Your task to perform on an android device: toggle airplane mode Image 0: 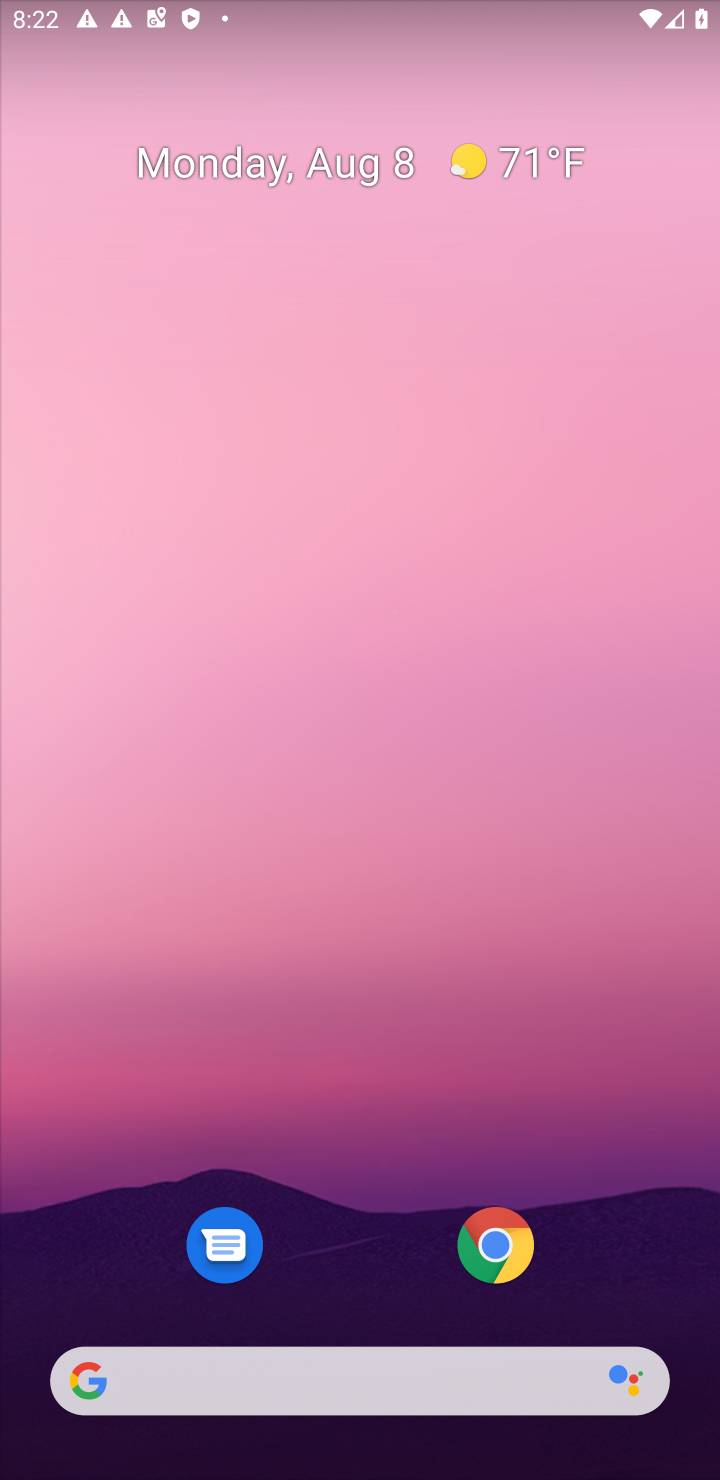
Step 0: drag from (355, 1034) to (364, 1)
Your task to perform on an android device: toggle airplane mode Image 1: 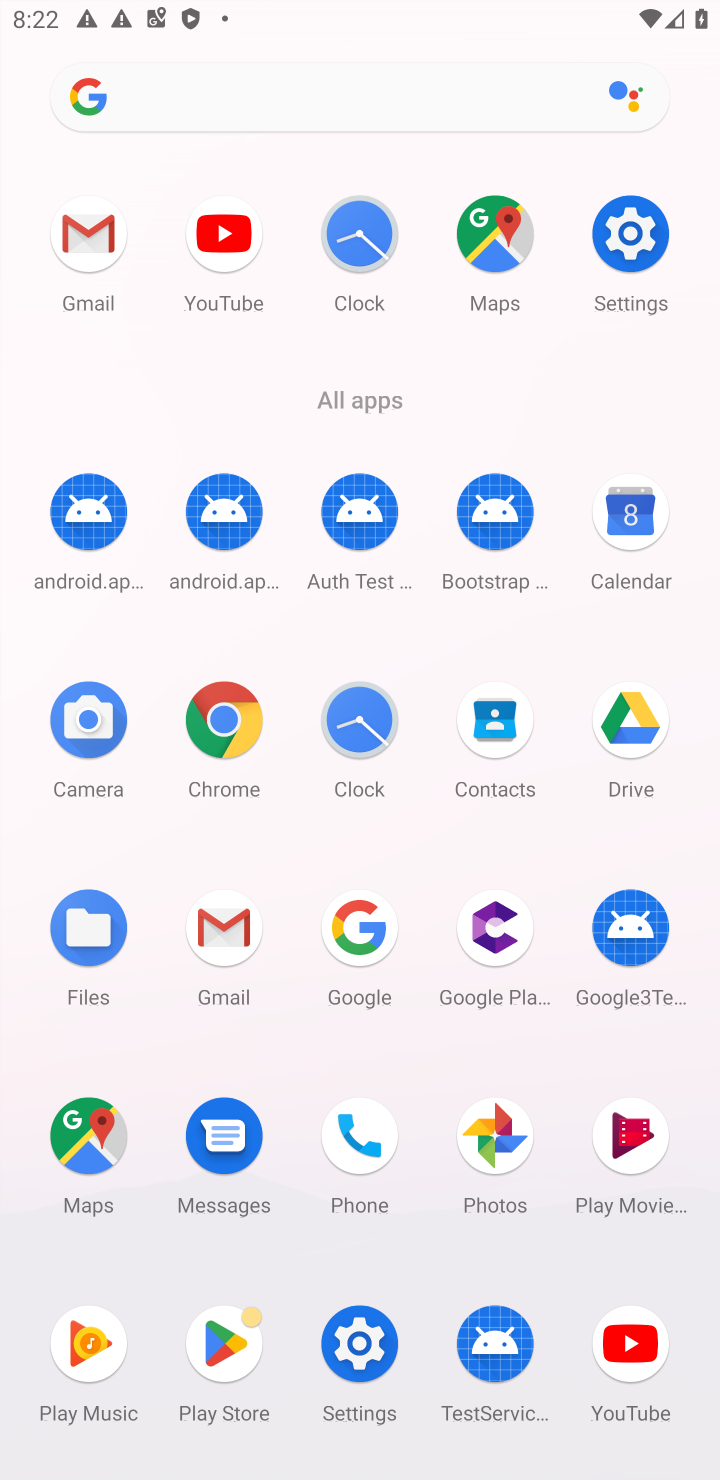
Step 1: click (644, 266)
Your task to perform on an android device: toggle airplane mode Image 2: 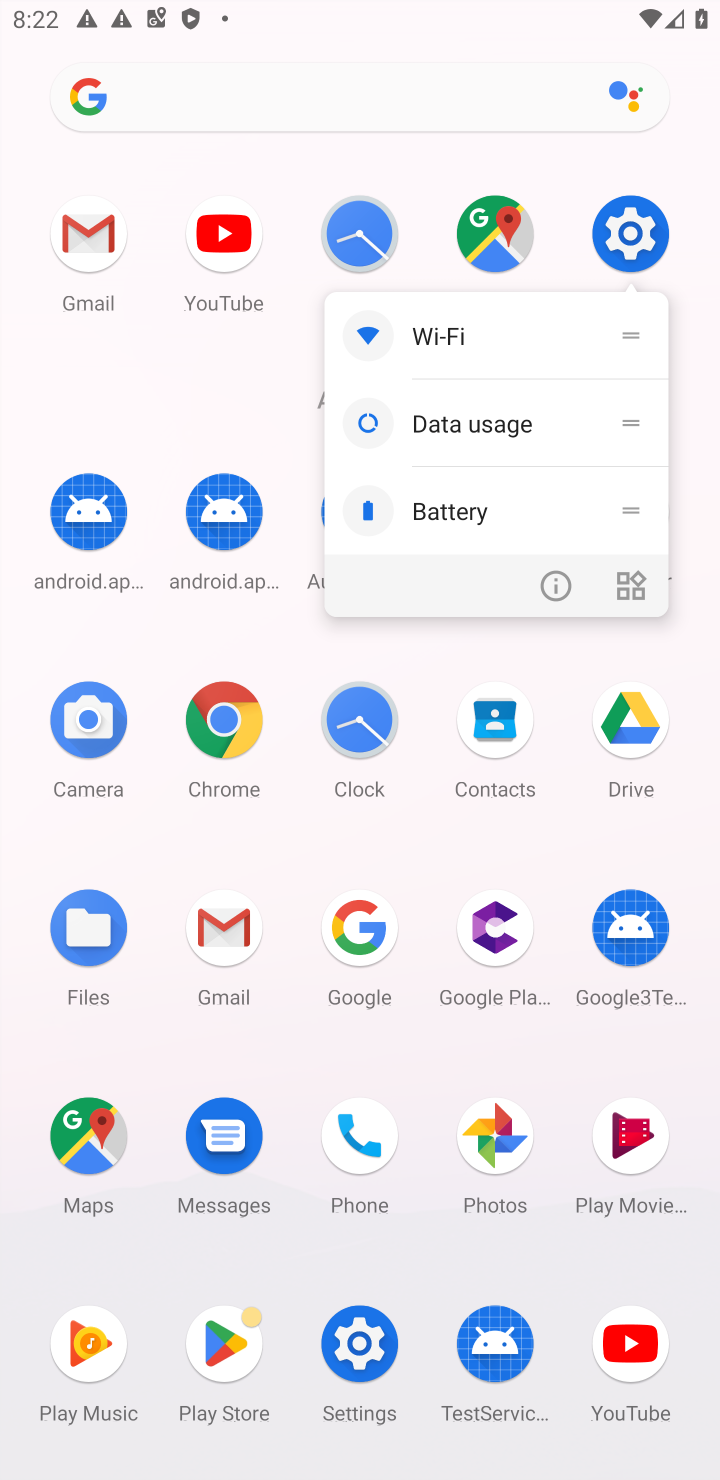
Step 2: click (628, 235)
Your task to perform on an android device: toggle airplane mode Image 3: 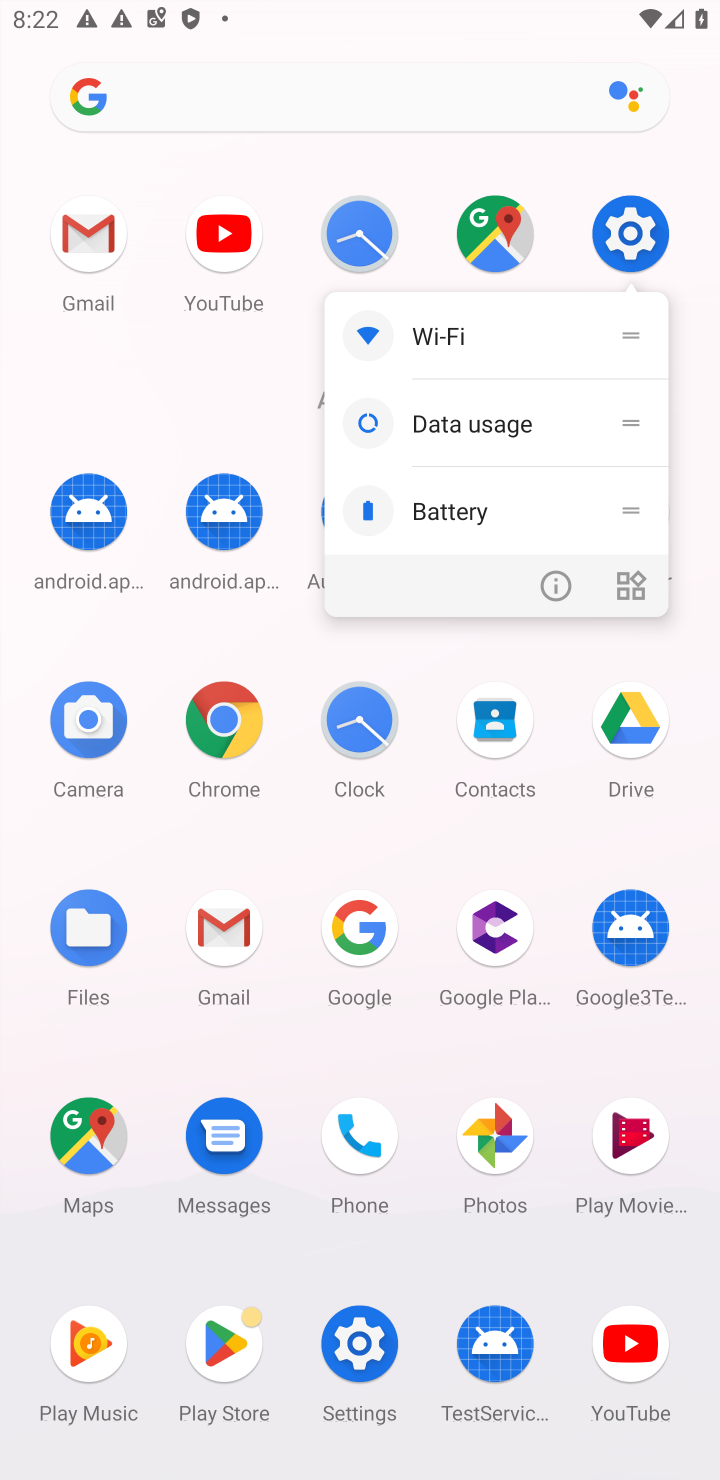
Step 3: click (648, 227)
Your task to perform on an android device: toggle airplane mode Image 4: 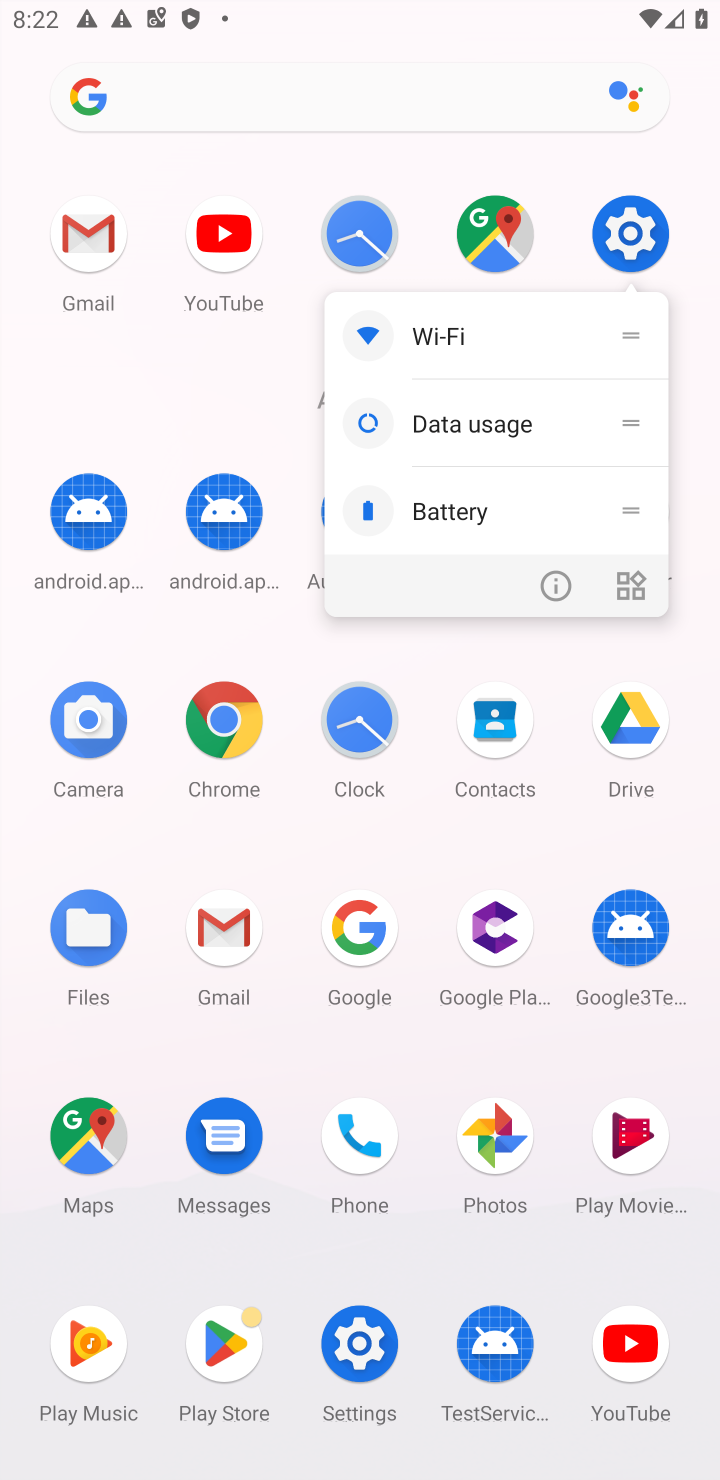
Step 4: click (672, 185)
Your task to perform on an android device: toggle airplane mode Image 5: 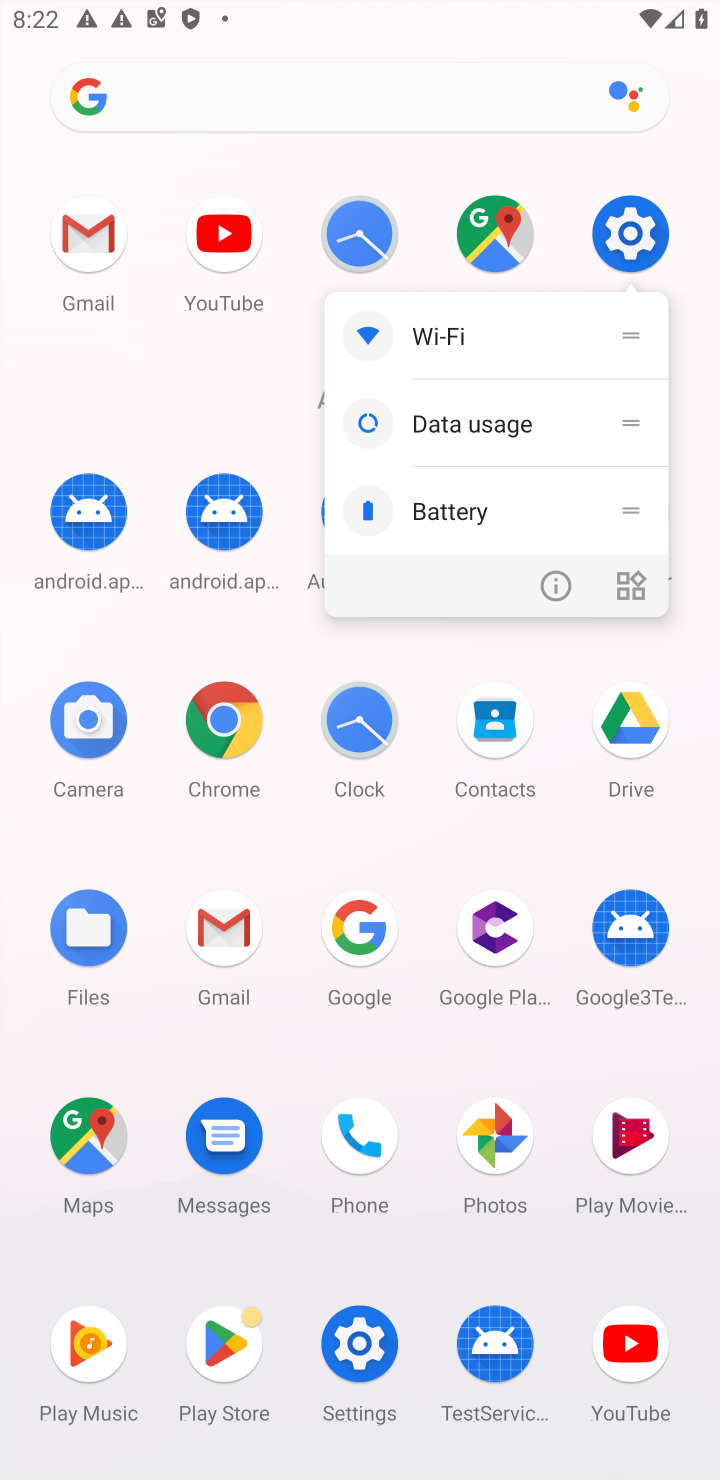
Step 5: click (631, 234)
Your task to perform on an android device: toggle airplane mode Image 6: 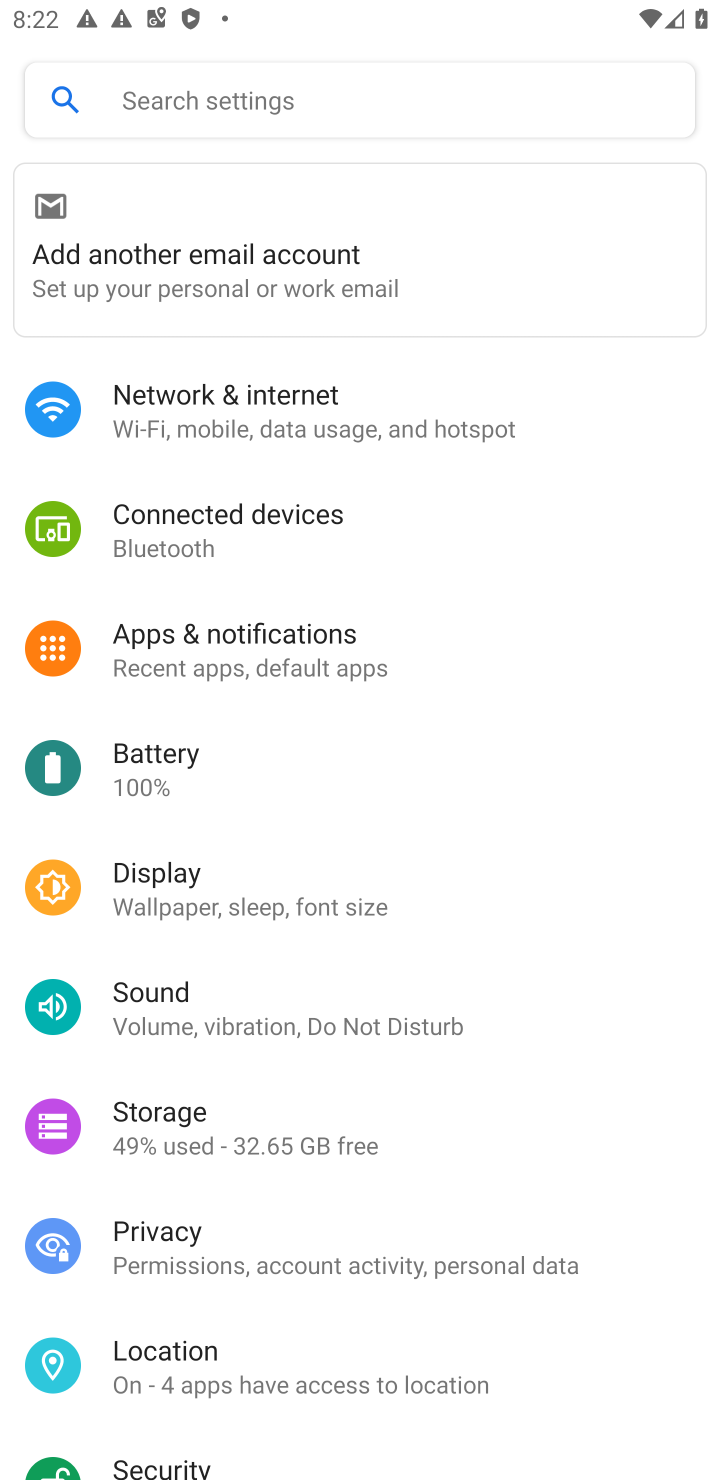
Step 6: click (255, 430)
Your task to perform on an android device: toggle airplane mode Image 7: 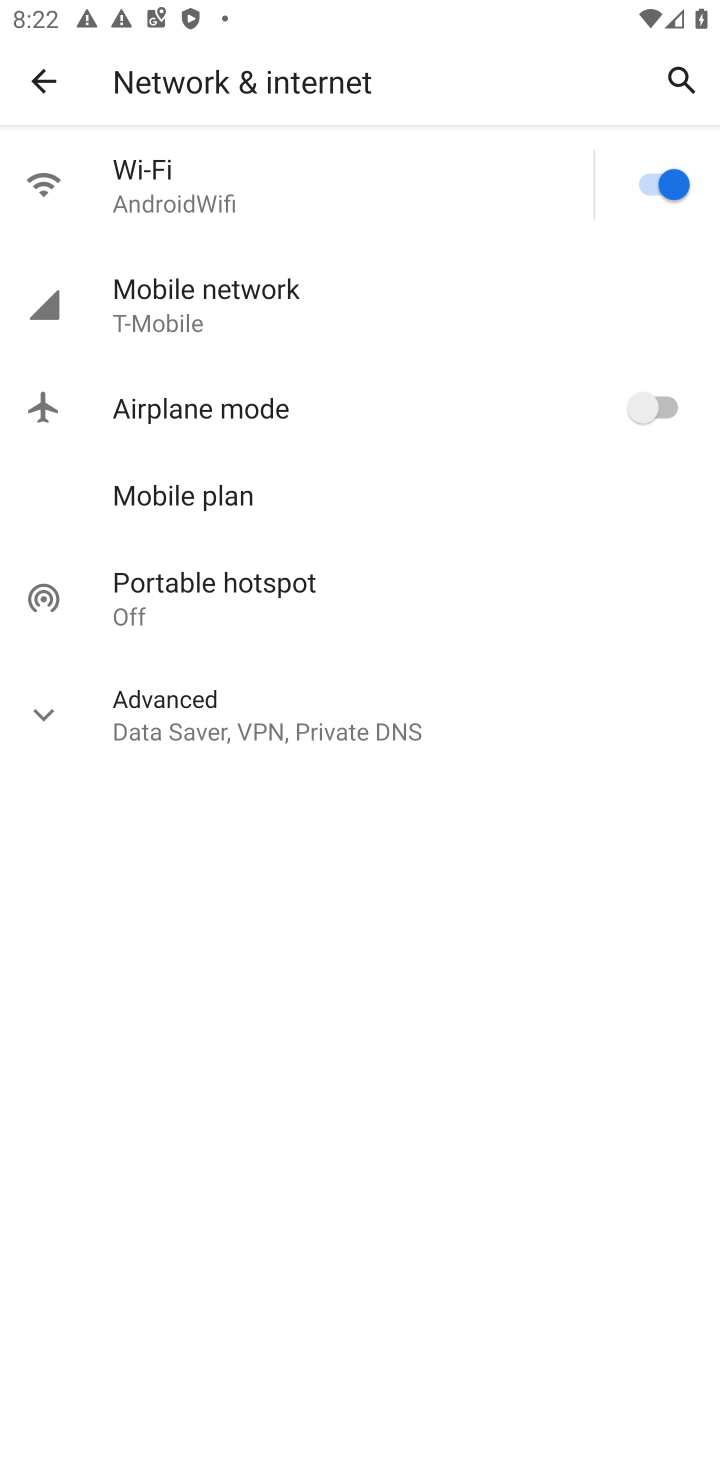
Step 7: click (693, 403)
Your task to perform on an android device: toggle airplane mode Image 8: 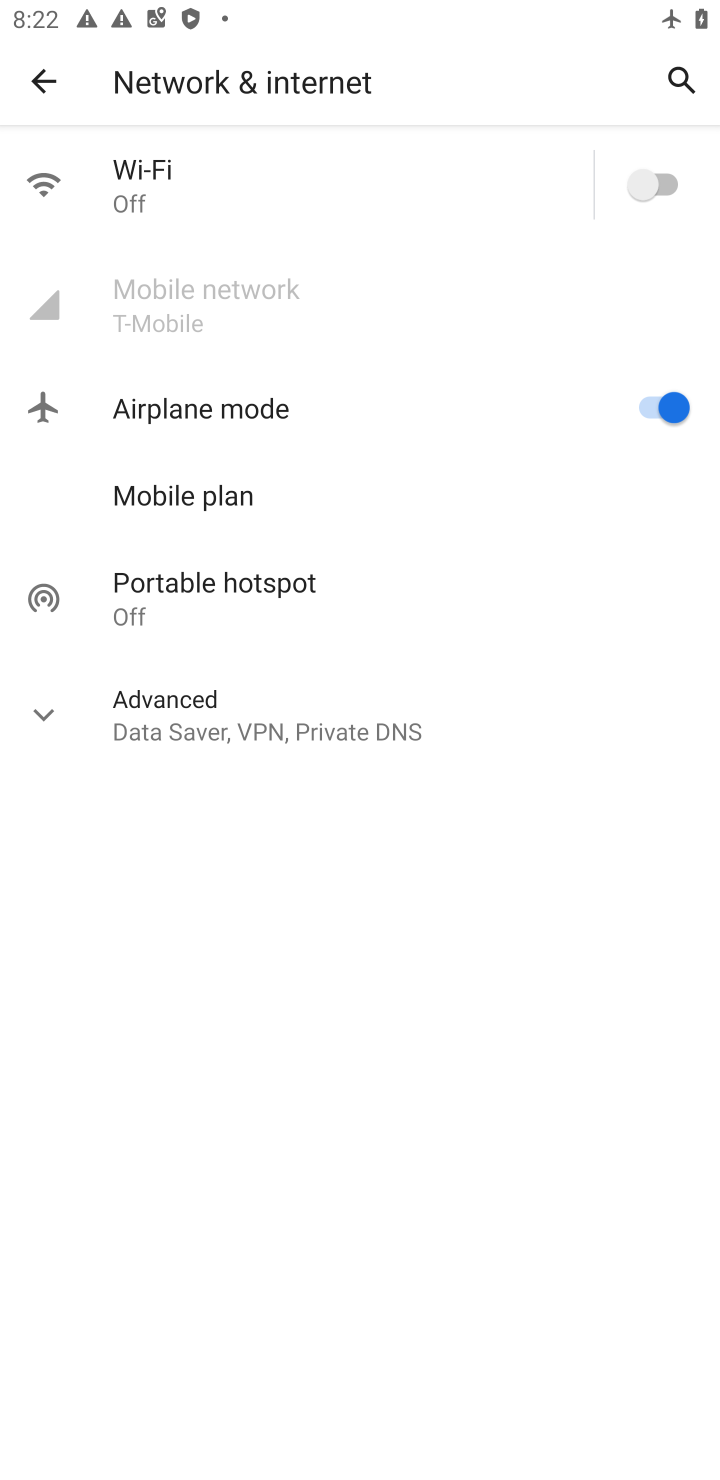
Step 8: task complete